Your task to perform on an android device: Open accessibility settings Image 0: 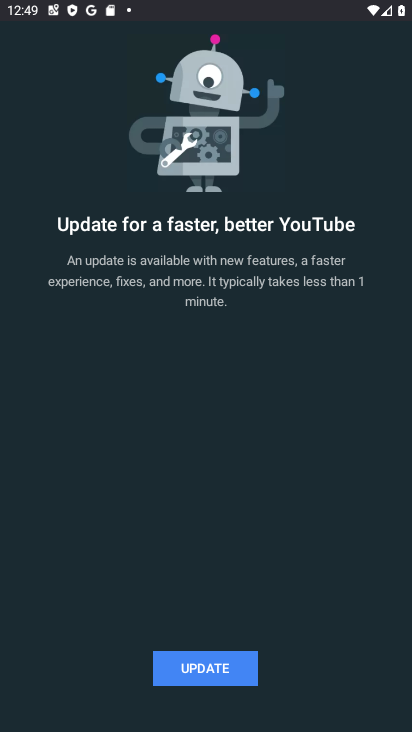
Step 0: press home button
Your task to perform on an android device: Open accessibility settings Image 1: 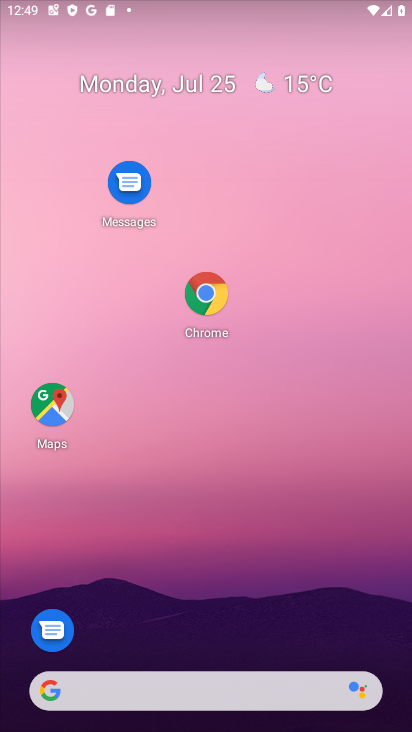
Step 1: drag from (340, 631) to (311, 64)
Your task to perform on an android device: Open accessibility settings Image 2: 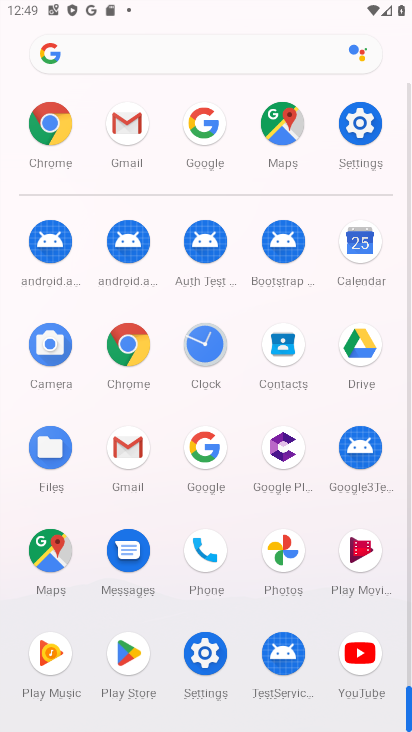
Step 2: click (211, 662)
Your task to perform on an android device: Open accessibility settings Image 3: 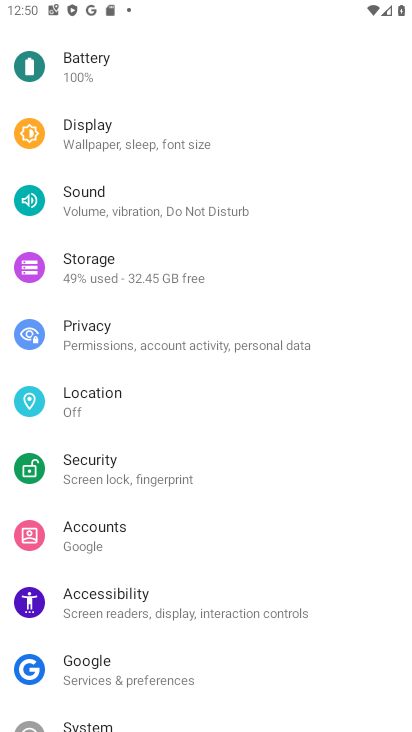
Step 3: drag from (208, 638) to (235, 261)
Your task to perform on an android device: Open accessibility settings Image 4: 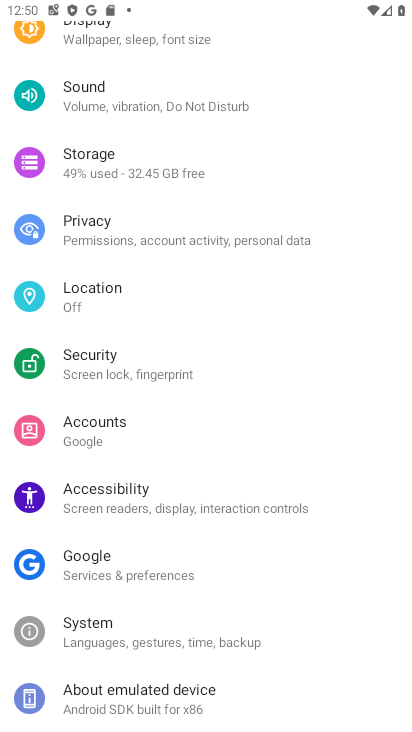
Step 4: click (104, 502)
Your task to perform on an android device: Open accessibility settings Image 5: 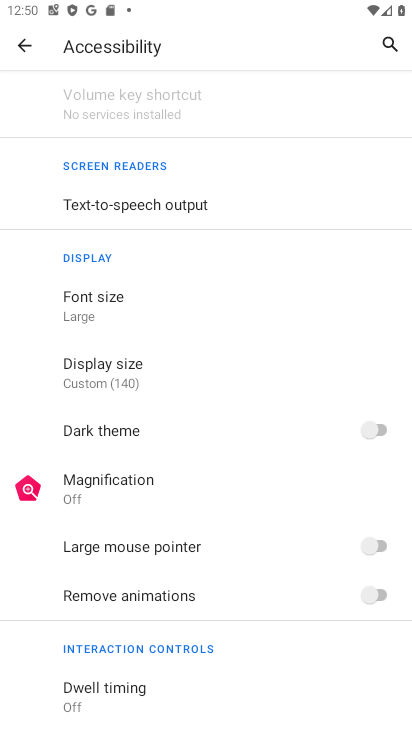
Step 5: task complete